Your task to perform on an android device: Go to accessibility settings Image 0: 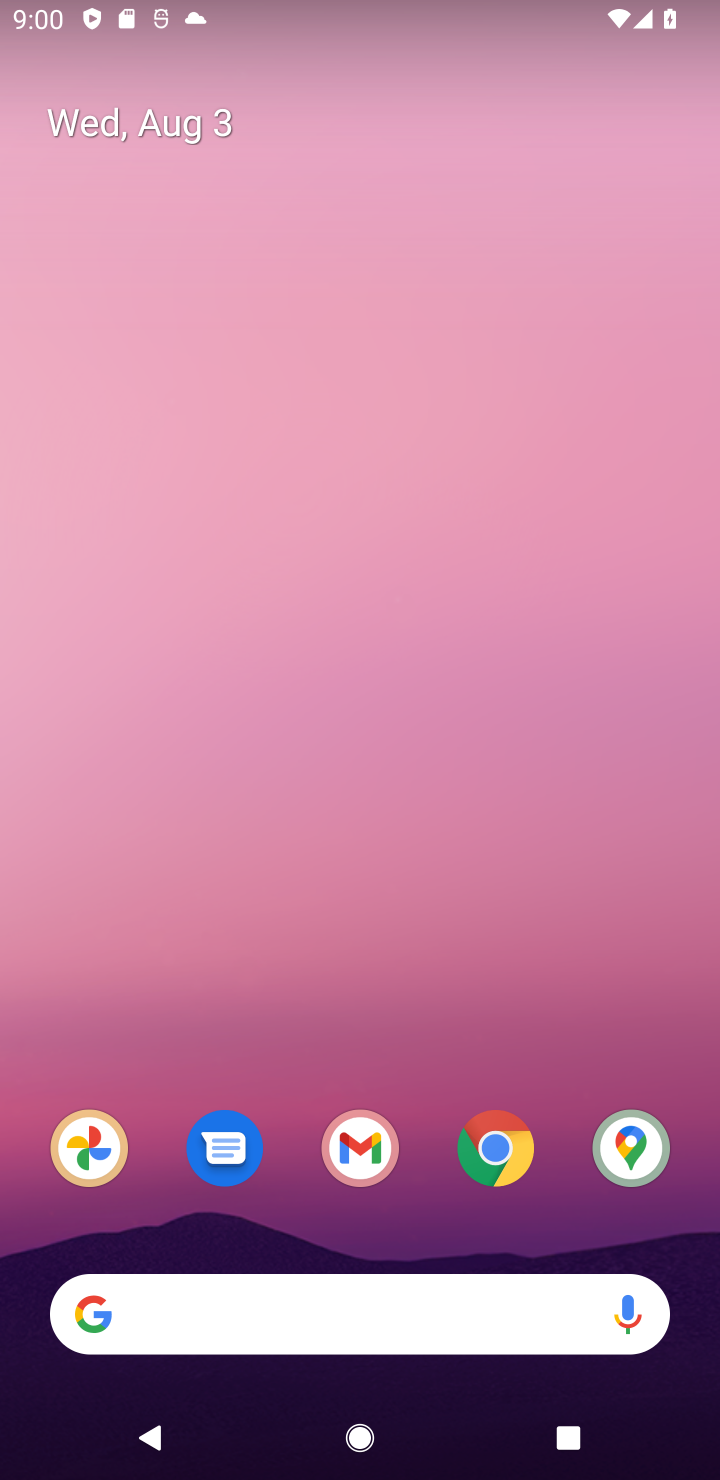
Step 0: drag from (352, 910) to (491, 237)
Your task to perform on an android device: Go to accessibility settings Image 1: 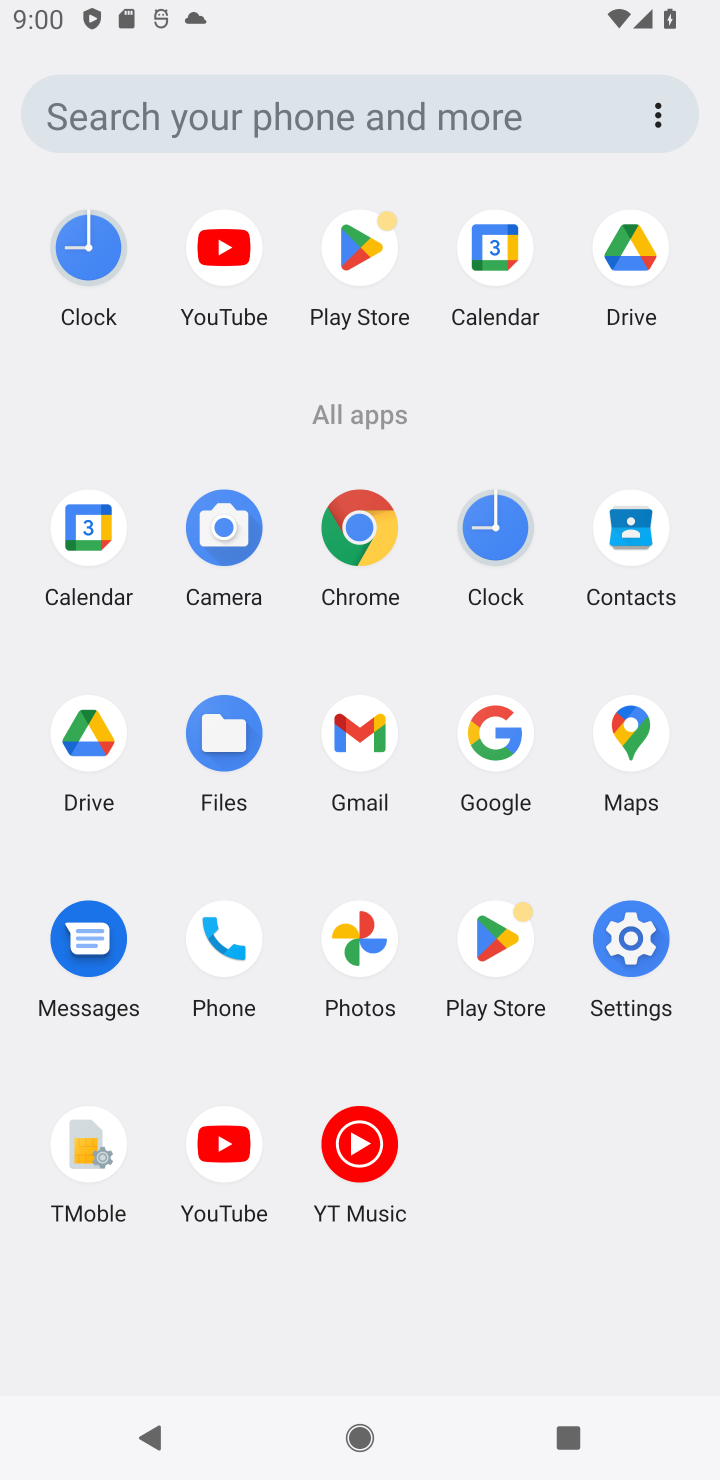
Step 1: click (600, 979)
Your task to perform on an android device: Go to accessibility settings Image 2: 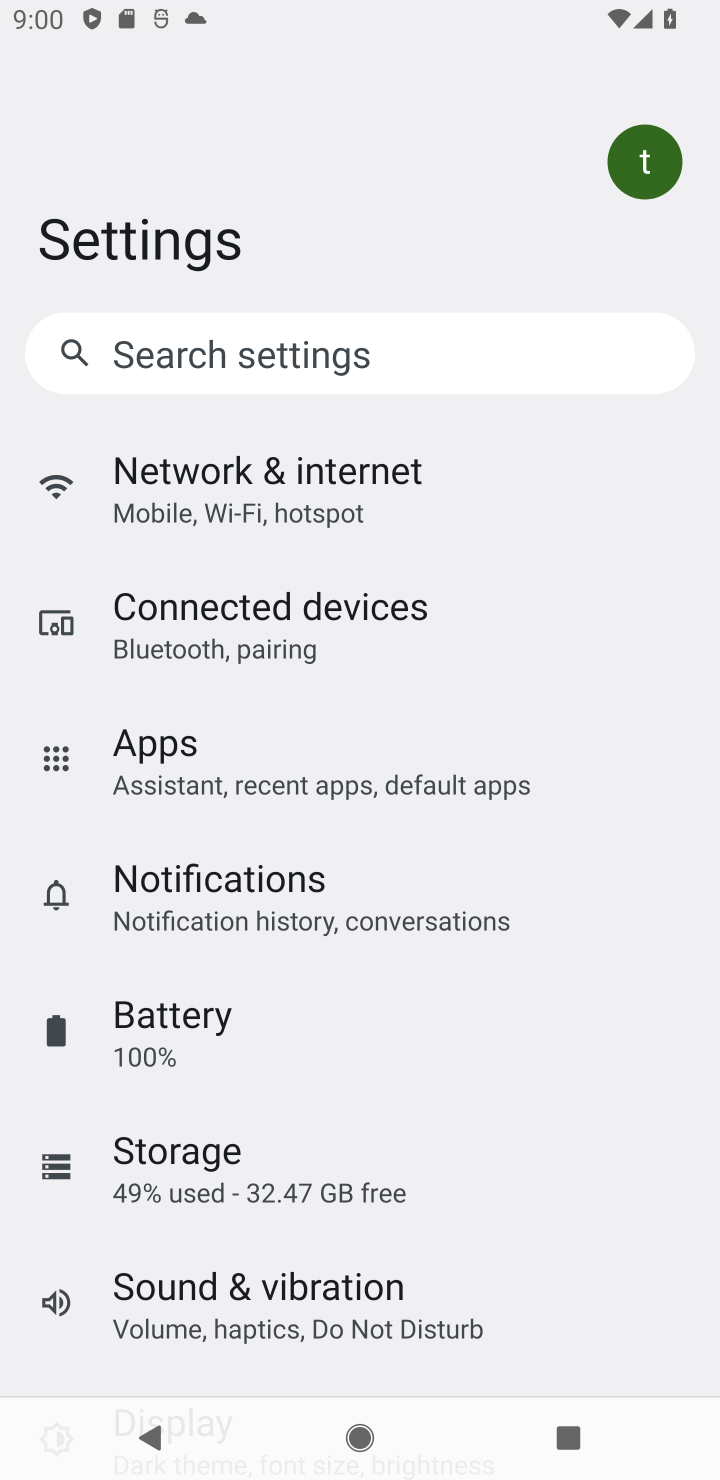
Step 2: drag from (375, 1125) to (431, 230)
Your task to perform on an android device: Go to accessibility settings Image 3: 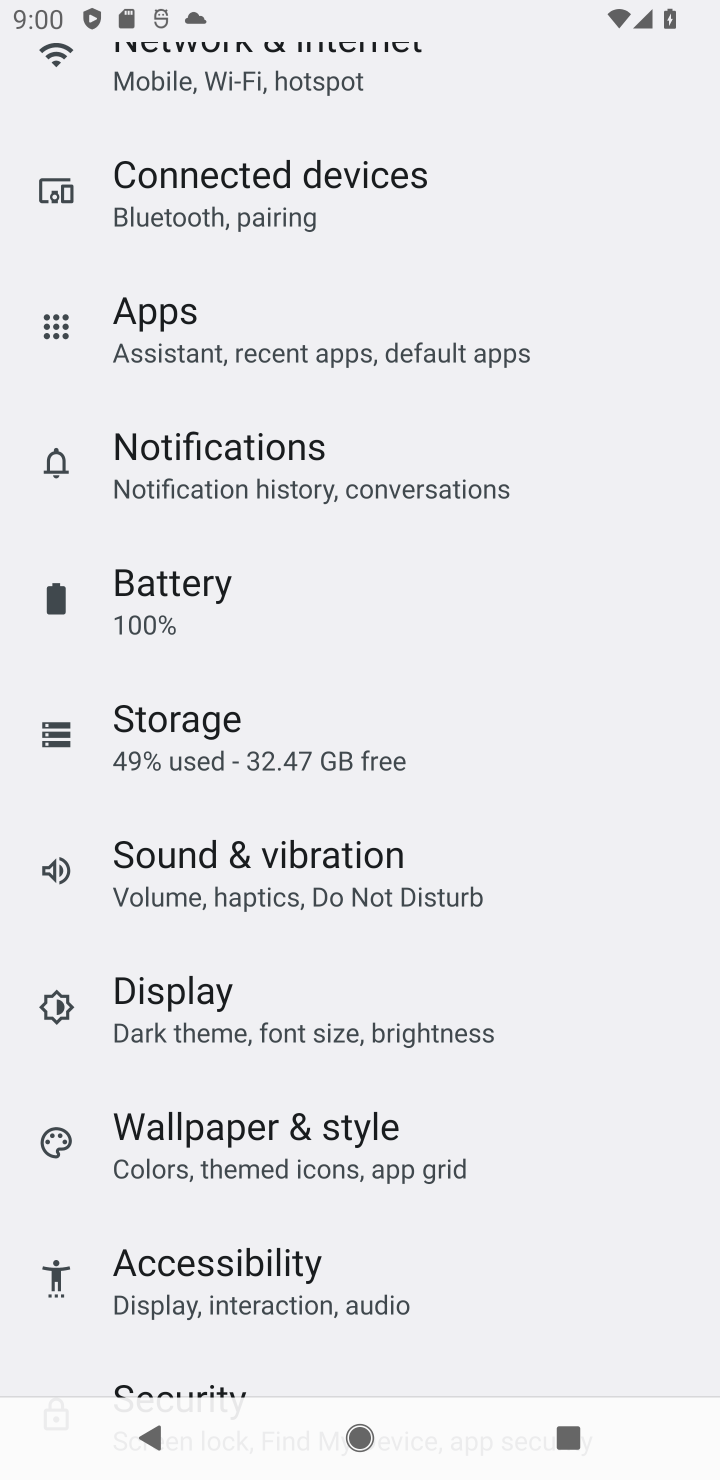
Step 3: click (257, 1275)
Your task to perform on an android device: Go to accessibility settings Image 4: 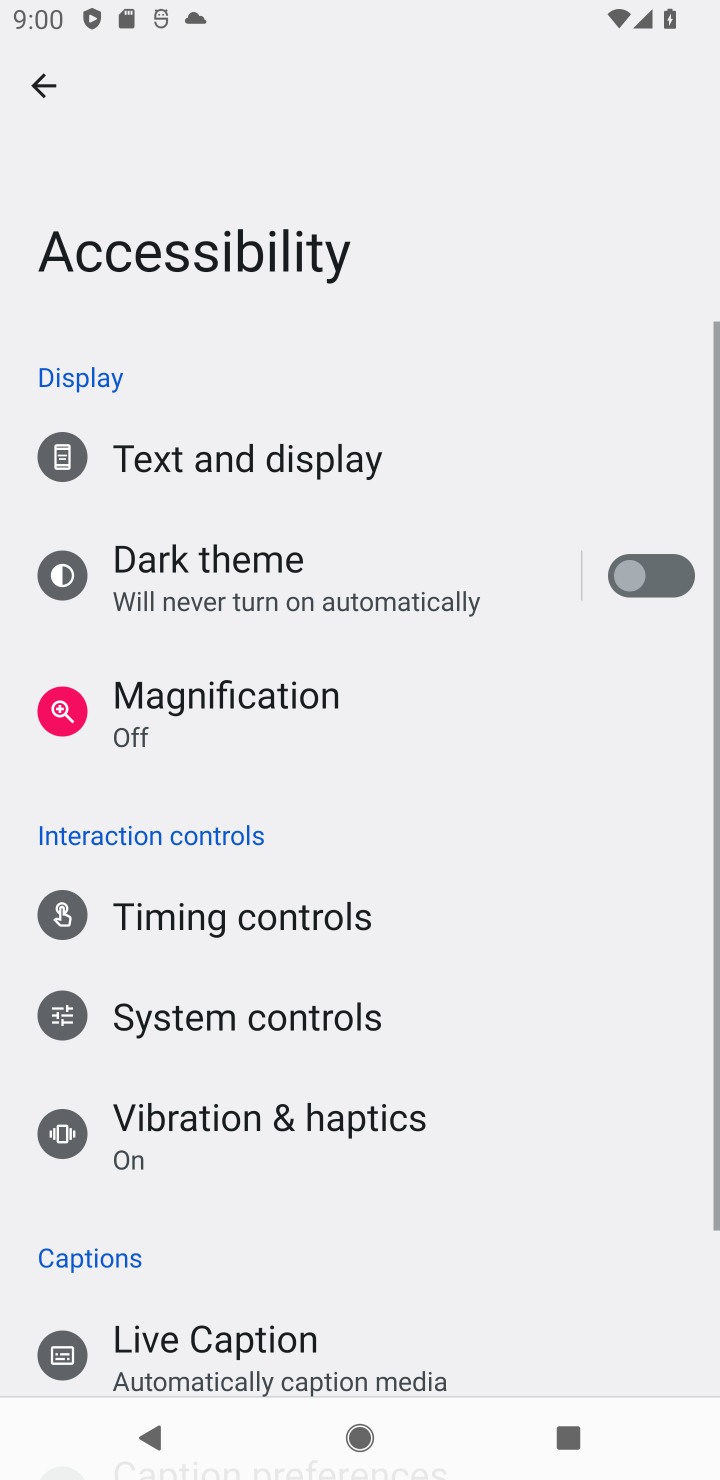
Step 4: task complete